Your task to perform on an android device: Open Amazon Image 0: 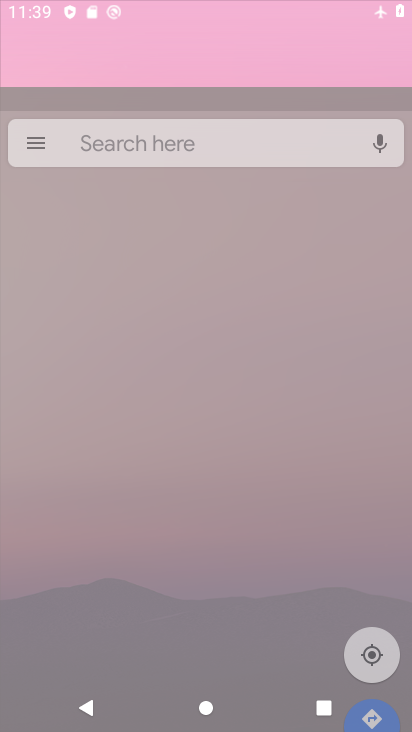
Step 0: click (131, 569)
Your task to perform on an android device: Open Amazon Image 1: 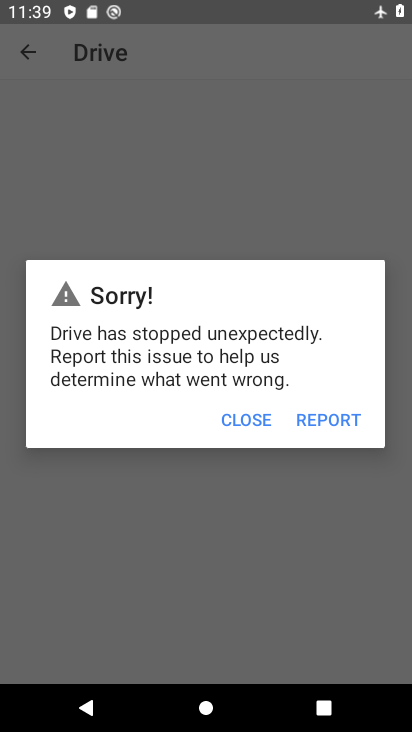
Step 1: press home button
Your task to perform on an android device: Open Amazon Image 2: 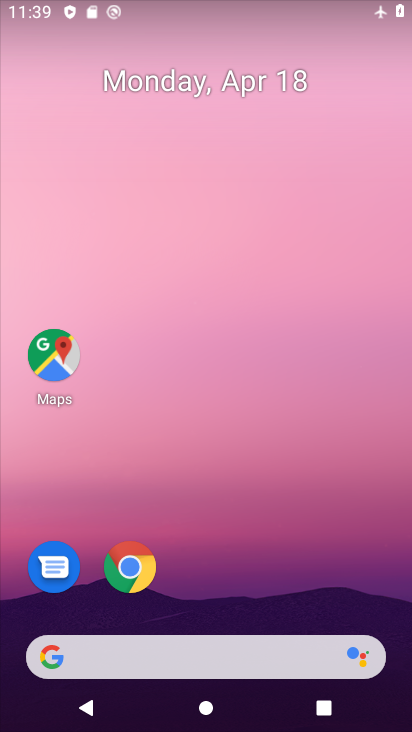
Step 2: click (128, 566)
Your task to perform on an android device: Open Amazon Image 3: 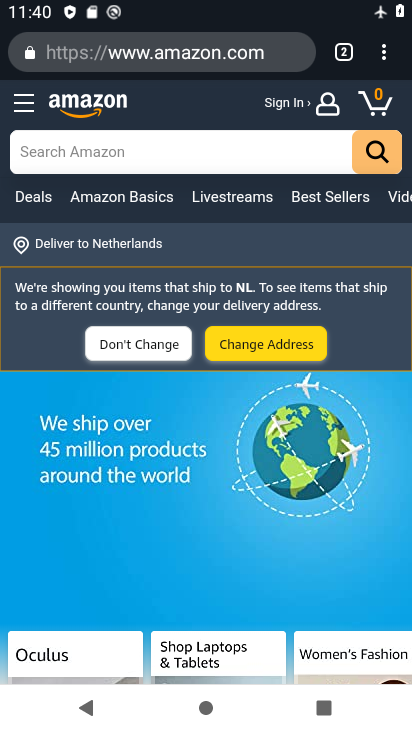
Step 3: task complete